Your task to perform on an android device: Search for seafood restaurants on Google Maps Image 0: 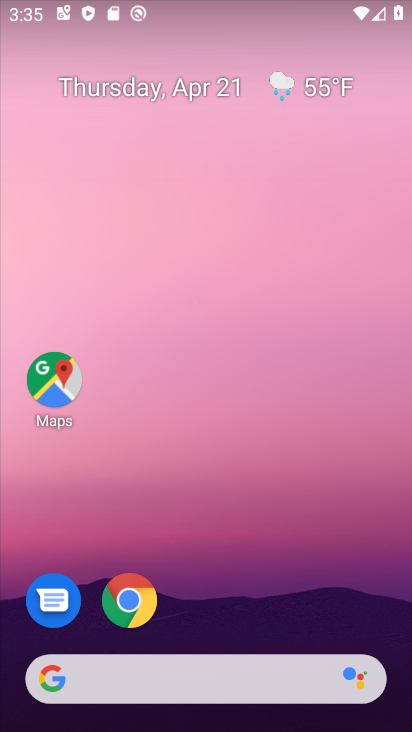
Step 0: drag from (186, 636) to (342, 94)
Your task to perform on an android device: Search for seafood restaurants on Google Maps Image 1: 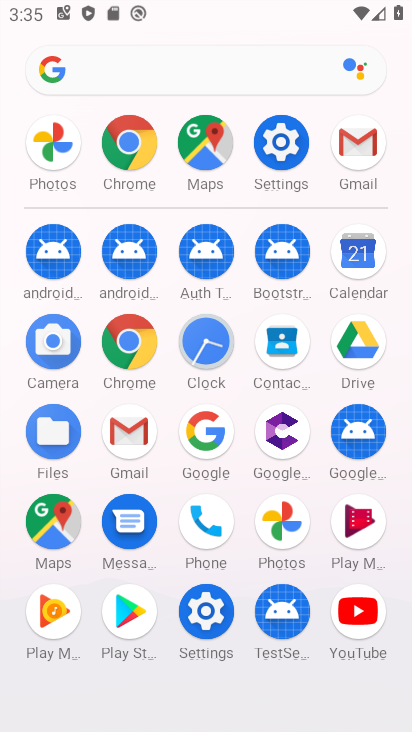
Step 1: click (202, 158)
Your task to perform on an android device: Search for seafood restaurants on Google Maps Image 2: 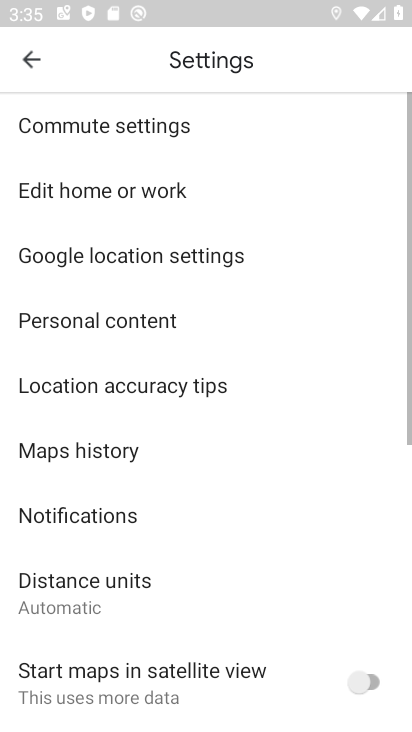
Step 2: click (32, 62)
Your task to perform on an android device: Search for seafood restaurants on Google Maps Image 3: 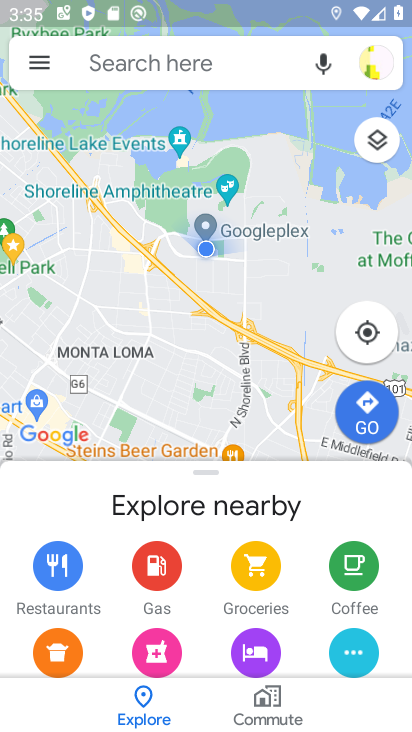
Step 3: click (130, 64)
Your task to perform on an android device: Search for seafood restaurants on Google Maps Image 4: 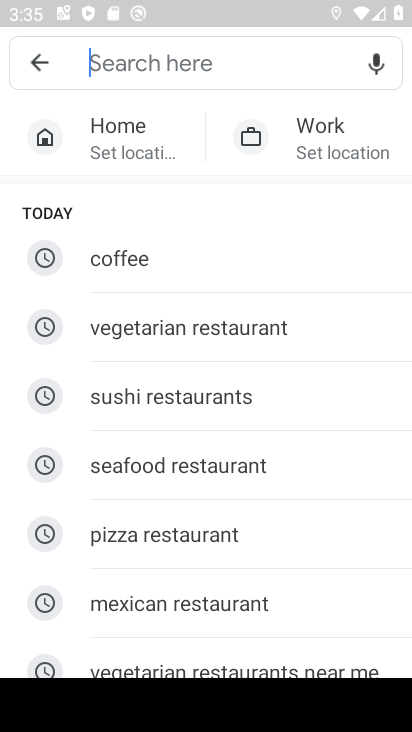
Step 4: click (191, 467)
Your task to perform on an android device: Search for seafood restaurants on Google Maps Image 5: 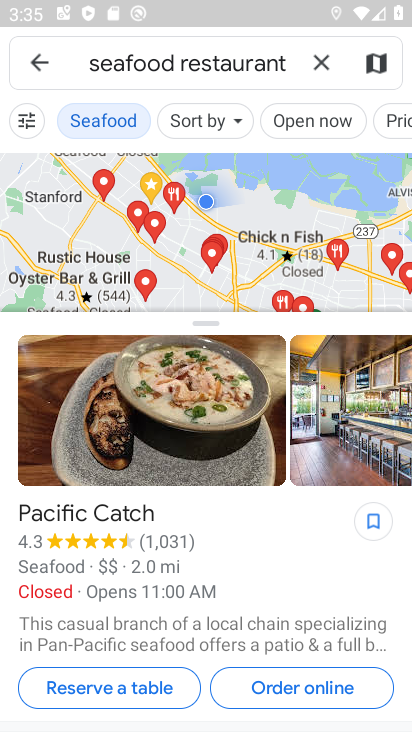
Step 5: task complete